Your task to perform on an android device: What is the news today? Image 0: 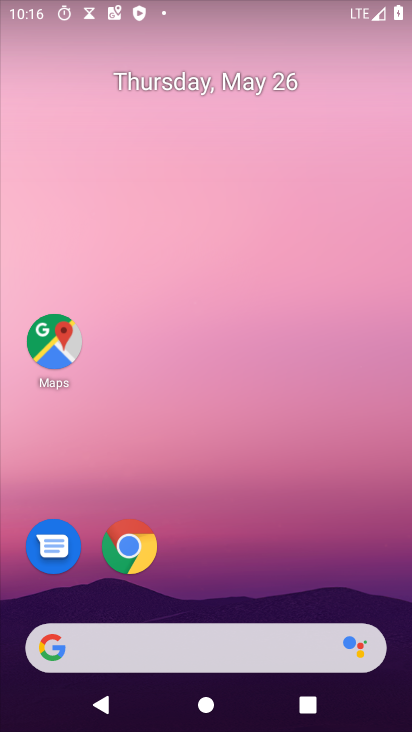
Step 0: drag from (378, 573) to (370, 113)
Your task to perform on an android device: What is the news today? Image 1: 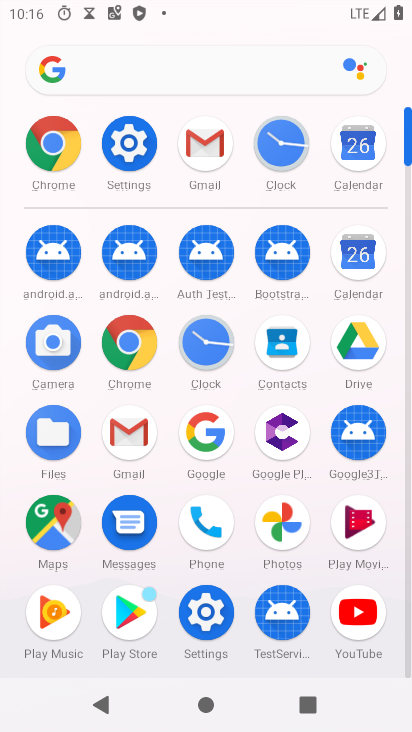
Step 1: click (130, 351)
Your task to perform on an android device: What is the news today? Image 2: 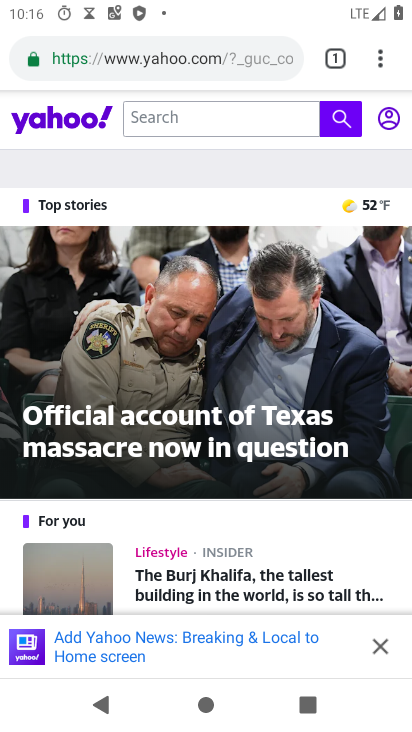
Step 2: click (207, 64)
Your task to perform on an android device: What is the news today? Image 3: 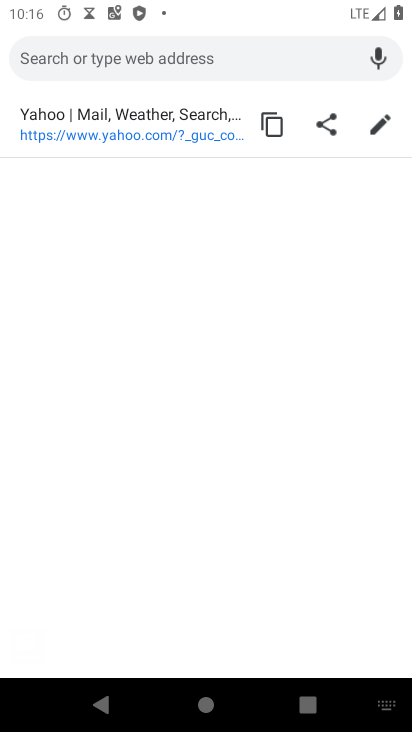
Step 3: type "what is the news today"
Your task to perform on an android device: What is the news today? Image 4: 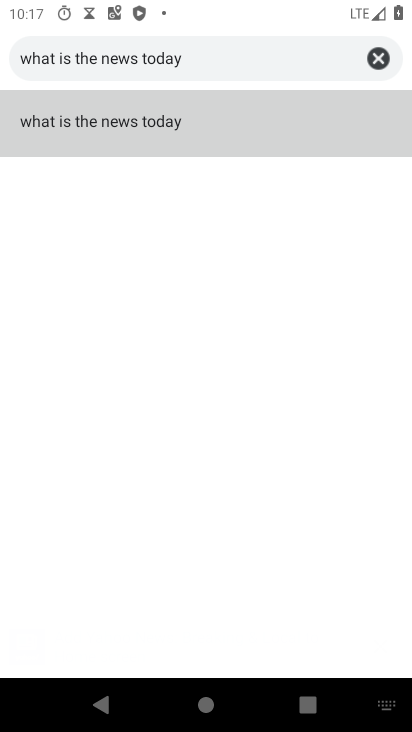
Step 4: click (127, 122)
Your task to perform on an android device: What is the news today? Image 5: 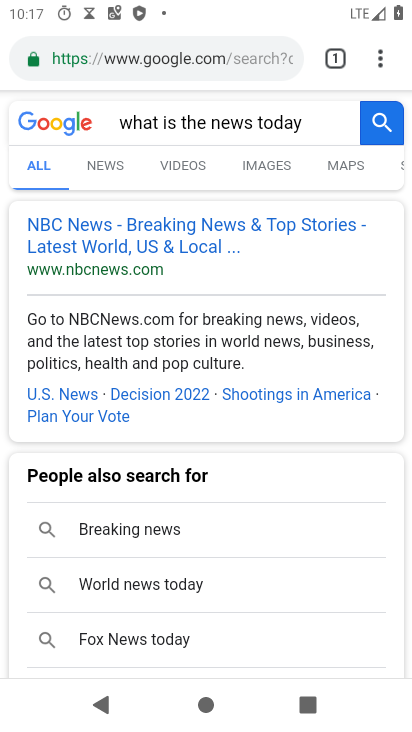
Step 5: task complete